Your task to perform on an android device: Open Chrome and go to the settings page Image 0: 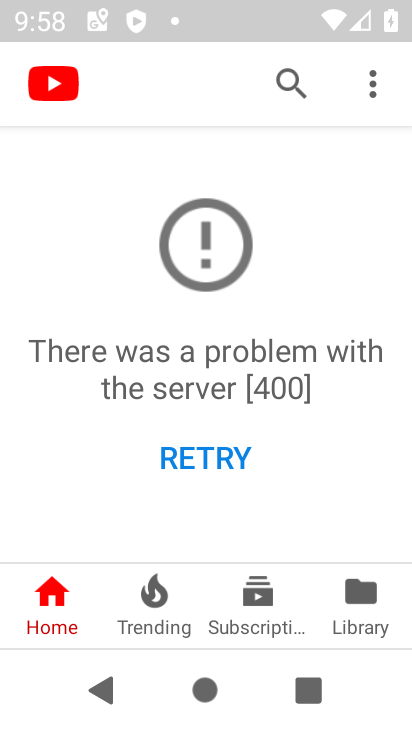
Step 0: press home button
Your task to perform on an android device: Open Chrome and go to the settings page Image 1: 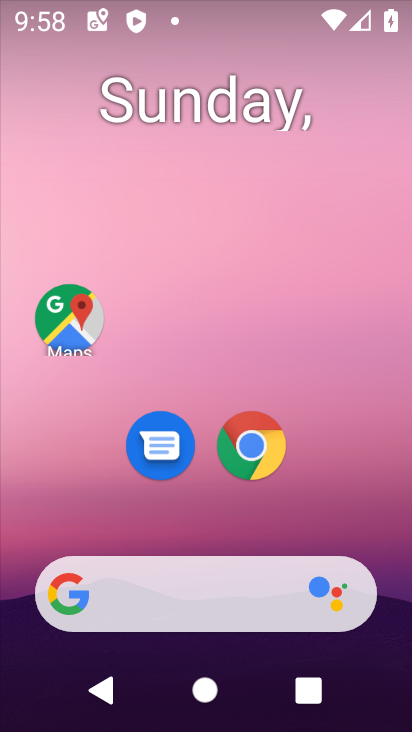
Step 1: click (271, 434)
Your task to perform on an android device: Open Chrome and go to the settings page Image 2: 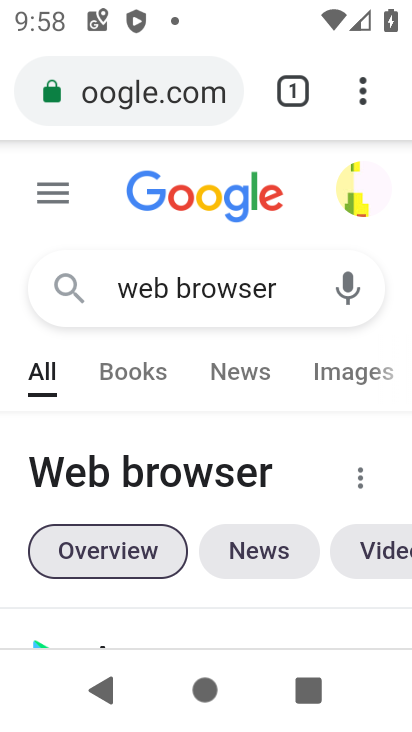
Step 2: task complete